Your task to perform on an android device: Open maps Image 0: 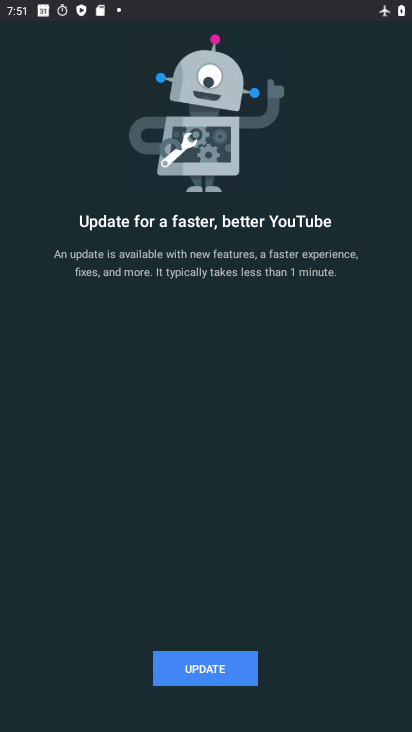
Step 0: press home button
Your task to perform on an android device: Open maps Image 1: 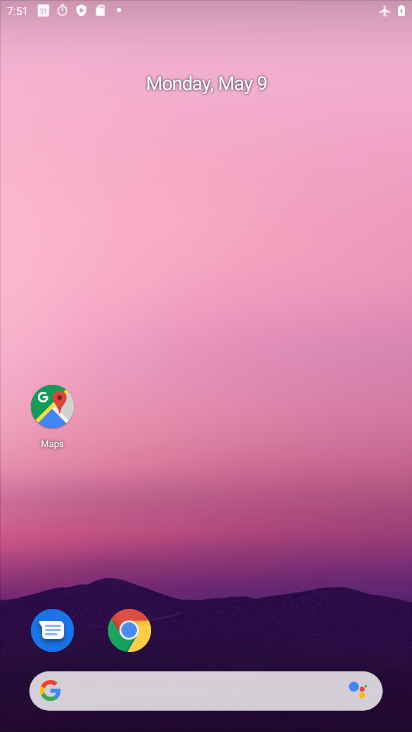
Step 1: drag from (329, 660) to (294, 194)
Your task to perform on an android device: Open maps Image 2: 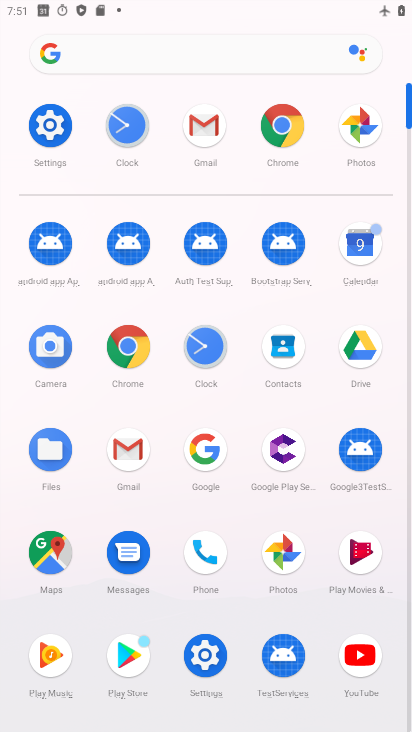
Step 2: click (86, 544)
Your task to perform on an android device: Open maps Image 3: 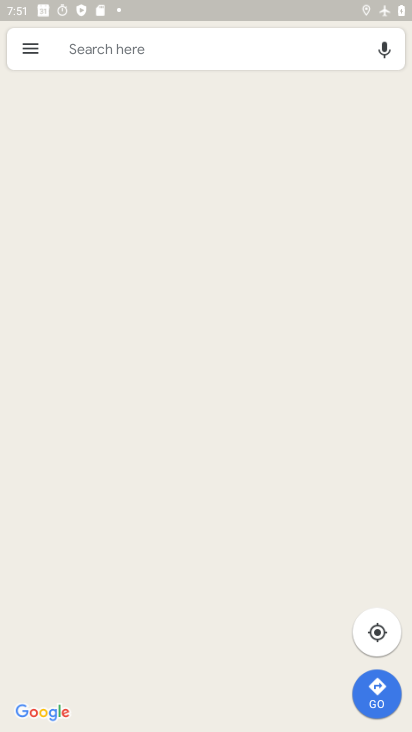
Step 3: task complete